Your task to perform on an android device: check the backup settings in the google photos Image 0: 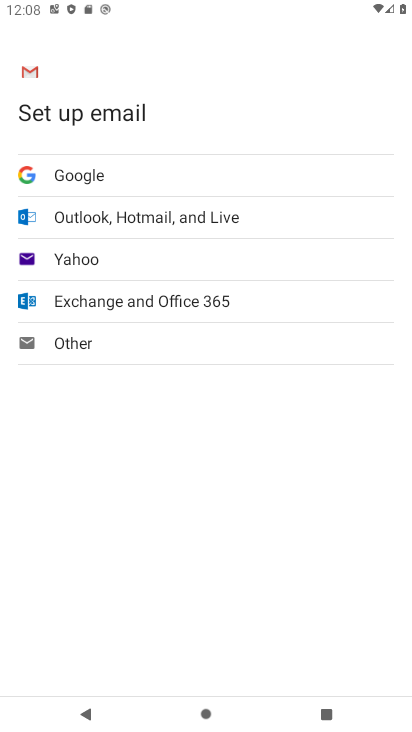
Step 0: press home button
Your task to perform on an android device: check the backup settings in the google photos Image 1: 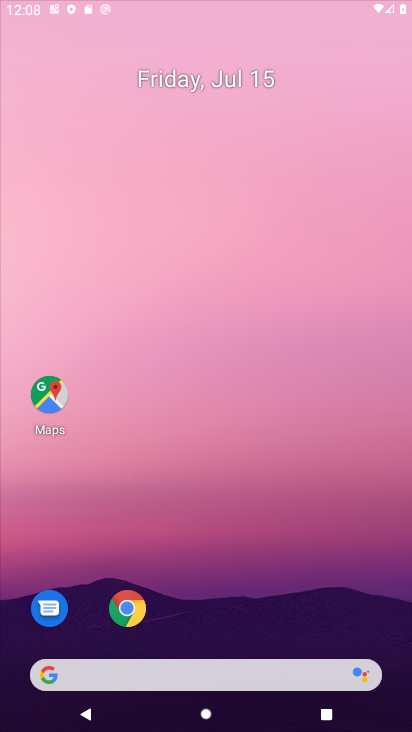
Step 1: drag from (179, 686) to (188, 41)
Your task to perform on an android device: check the backup settings in the google photos Image 2: 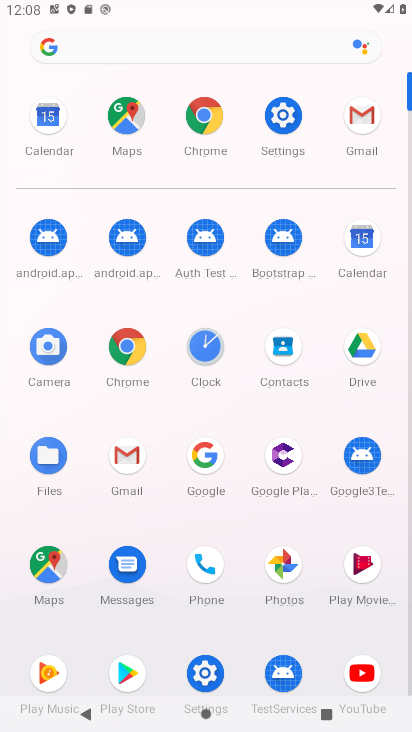
Step 2: drag from (229, 593) to (233, 518)
Your task to perform on an android device: check the backup settings in the google photos Image 3: 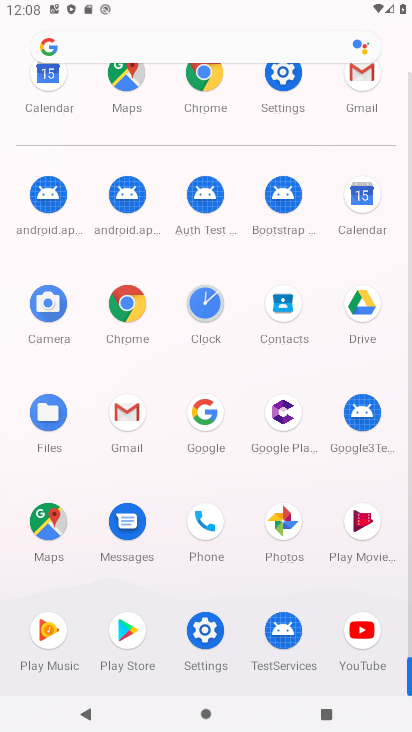
Step 3: click (289, 523)
Your task to perform on an android device: check the backup settings in the google photos Image 4: 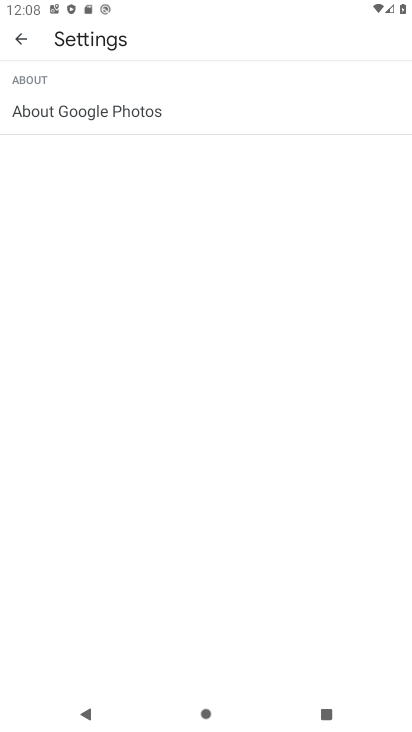
Step 4: press back button
Your task to perform on an android device: check the backup settings in the google photos Image 5: 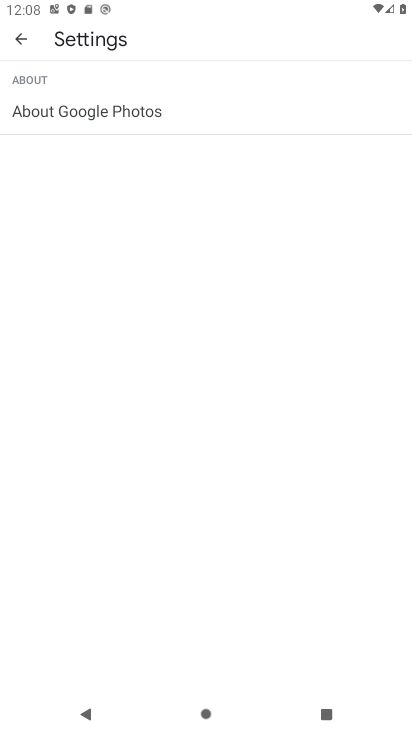
Step 5: press back button
Your task to perform on an android device: check the backup settings in the google photos Image 6: 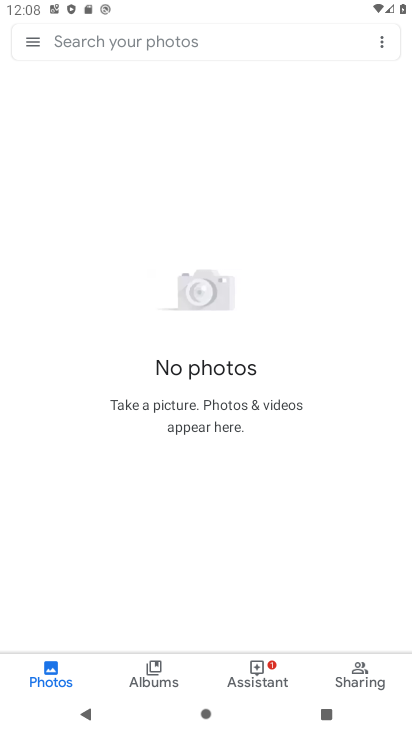
Step 6: click (39, 46)
Your task to perform on an android device: check the backup settings in the google photos Image 7: 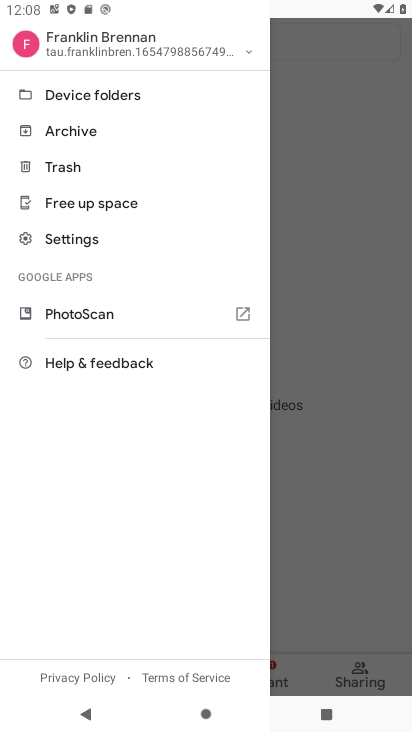
Step 7: click (78, 235)
Your task to perform on an android device: check the backup settings in the google photos Image 8: 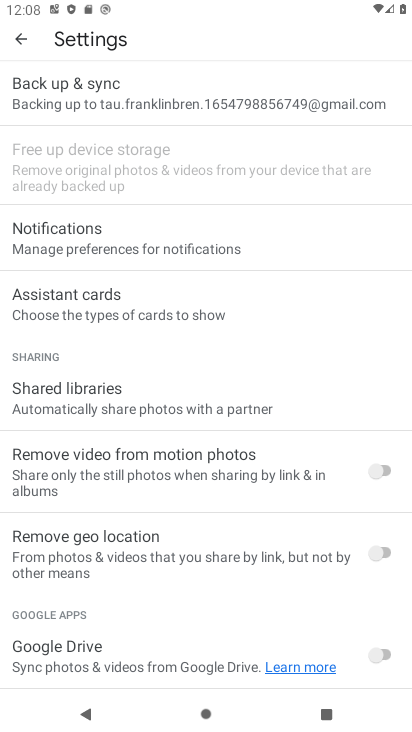
Step 8: click (118, 102)
Your task to perform on an android device: check the backup settings in the google photos Image 9: 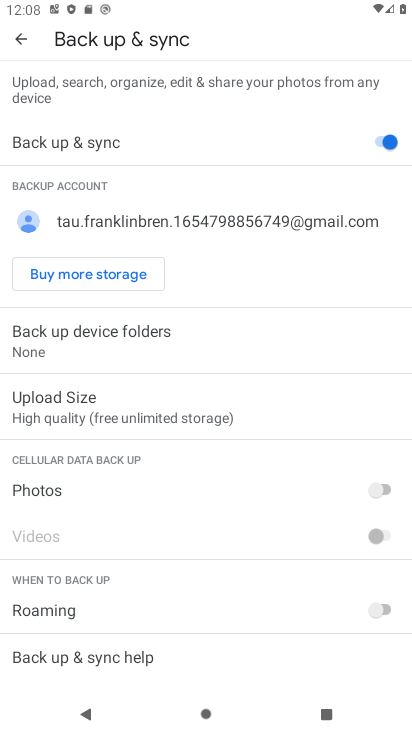
Step 9: task complete